Your task to perform on an android device: Go to sound settings Image 0: 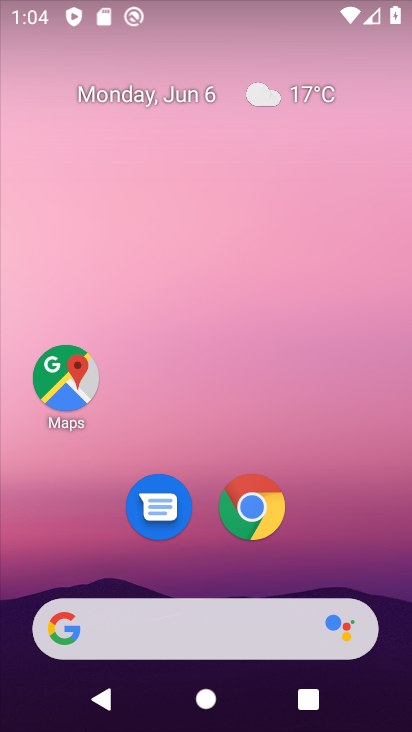
Step 0: drag from (238, 639) to (147, 148)
Your task to perform on an android device: Go to sound settings Image 1: 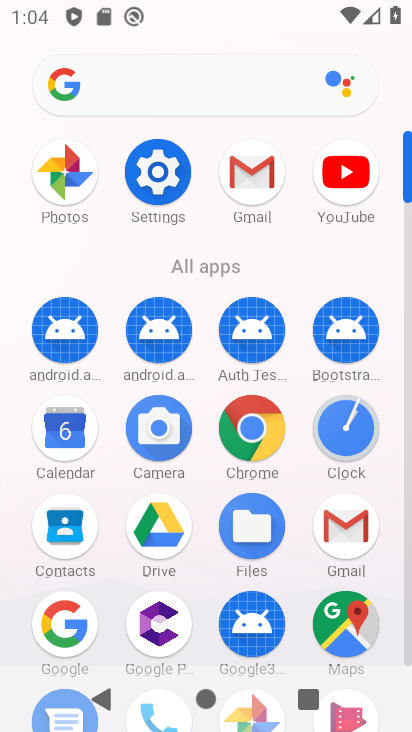
Step 1: click (163, 162)
Your task to perform on an android device: Go to sound settings Image 2: 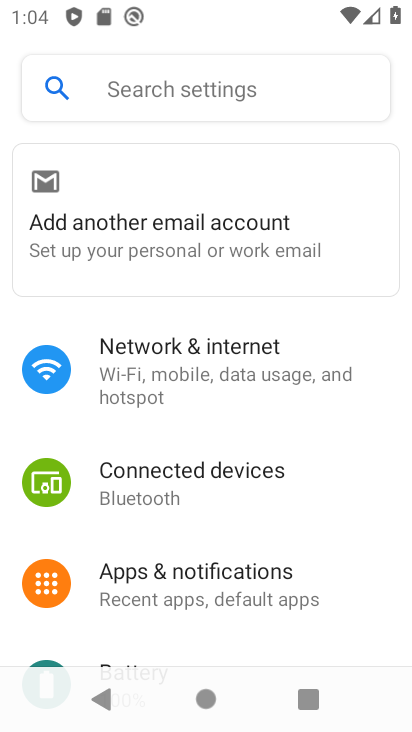
Step 2: click (135, 97)
Your task to perform on an android device: Go to sound settings Image 3: 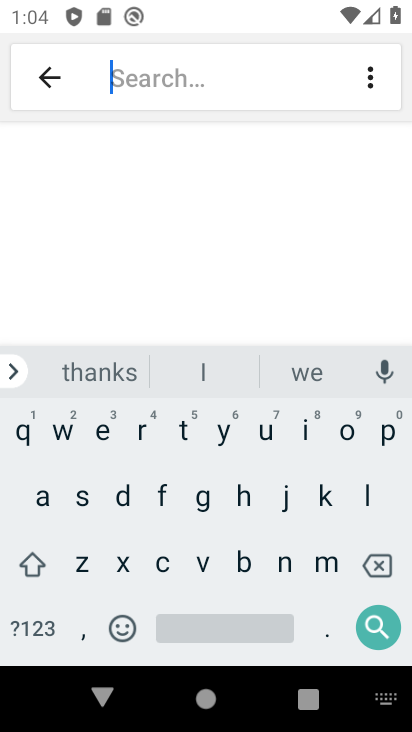
Step 3: click (82, 503)
Your task to perform on an android device: Go to sound settings Image 4: 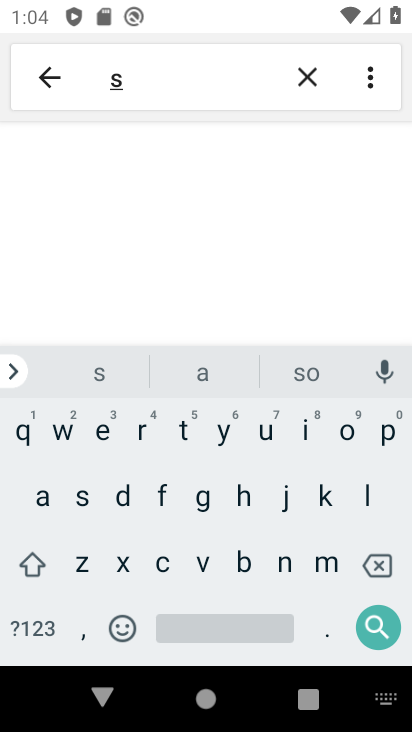
Step 4: click (348, 429)
Your task to perform on an android device: Go to sound settings Image 5: 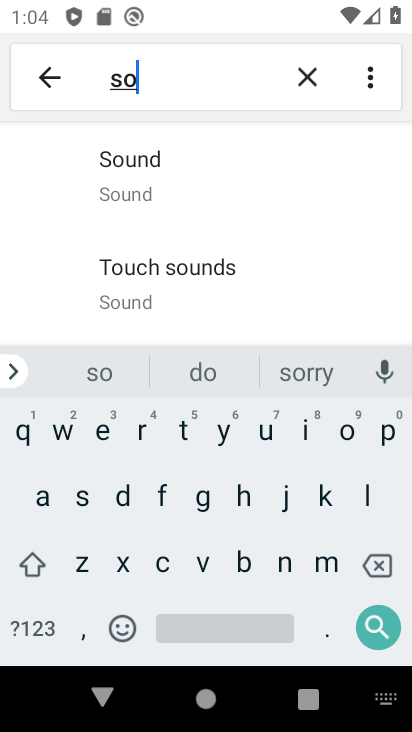
Step 5: click (163, 186)
Your task to perform on an android device: Go to sound settings Image 6: 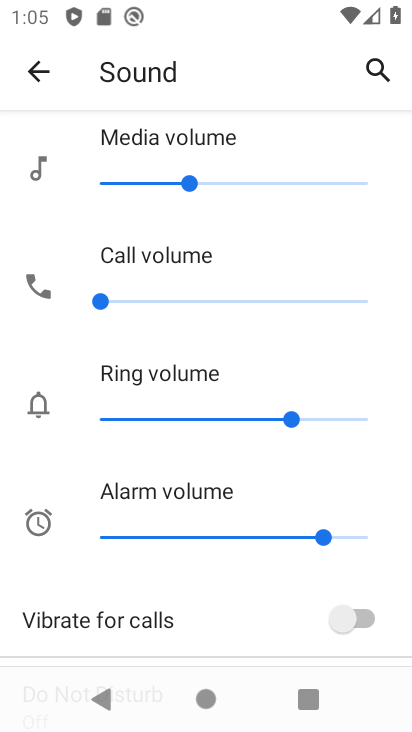
Step 6: task complete